Your task to perform on an android device: delete the emails in spam in the gmail app Image 0: 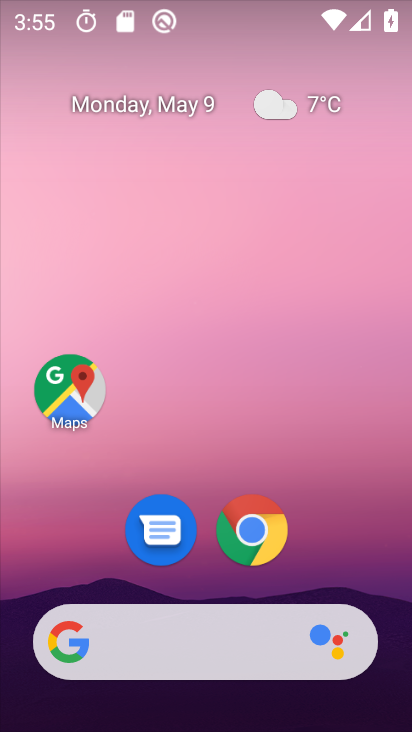
Step 0: drag from (201, 610) to (261, 173)
Your task to perform on an android device: delete the emails in spam in the gmail app Image 1: 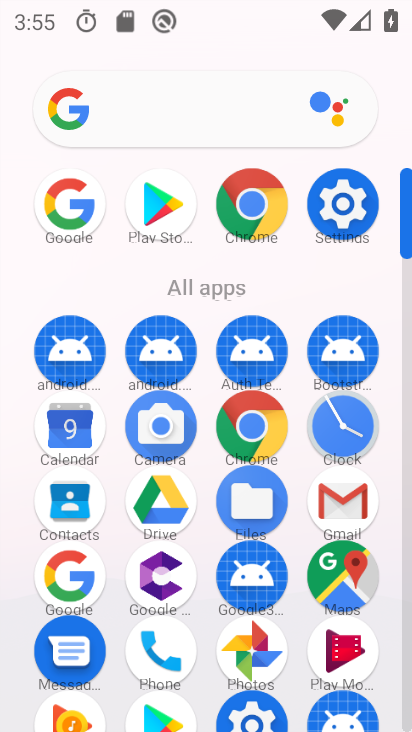
Step 1: click (322, 481)
Your task to perform on an android device: delete the emails in spam in the gmail app Image 2: 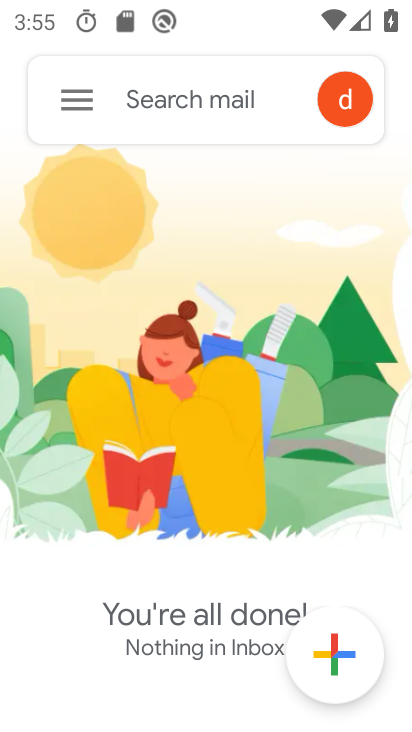
Step 2: click (63, 106)
Your task to perform on an android device: delete the emails in spam in the gmail app Image 3: 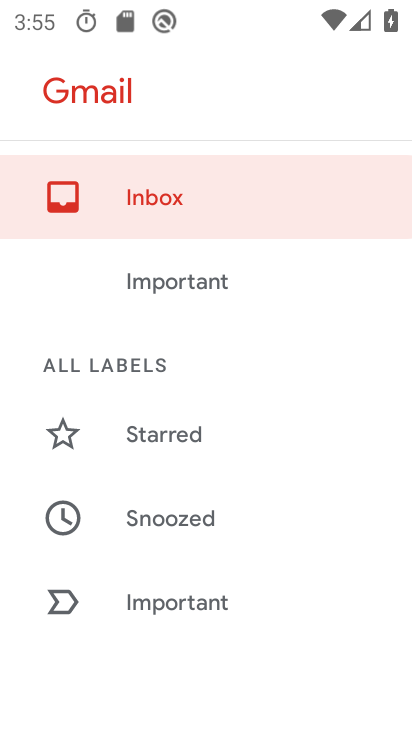
Step 3: drag from (220, 635) to (257, 114)
Your task to perform on an android device: delete the emails in spam in the gmail app Image 4: 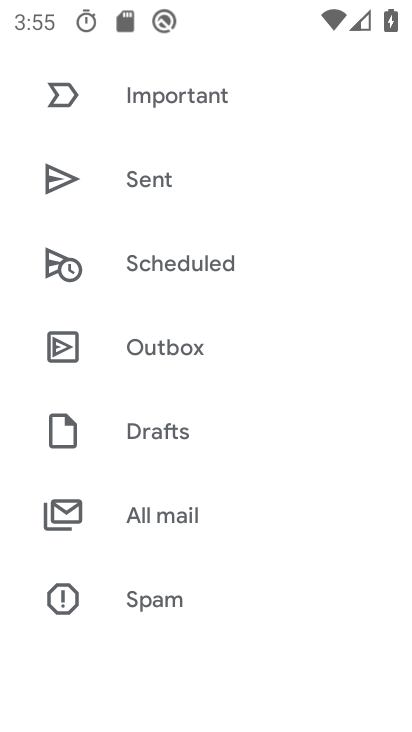
Step 4: click (144, 609)
Your task to perform on an android device: delete the emails in spam in the gmail app Image 5: 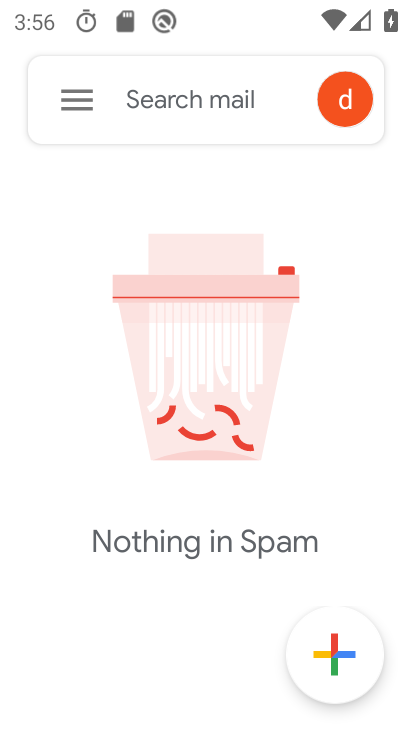
Step 5: task complete